Your task to perform on an android device: Go to Google Image 0: 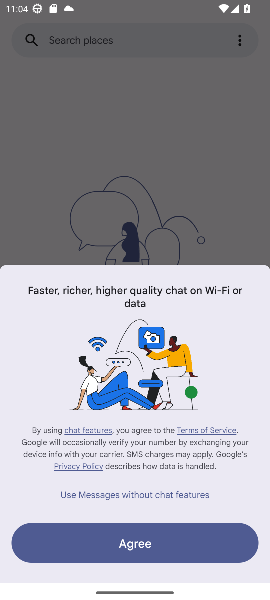
Step 0: press home button
Your task to perform on an android device: Go to Google Image 1: 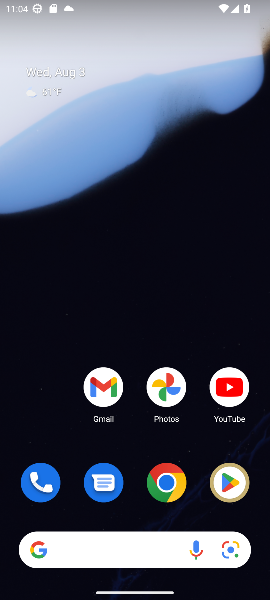
Step 1: click (164, 495)
Your task to perform on an android device: Go to Google Image 2: 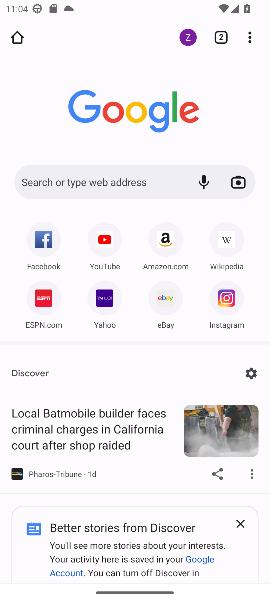
Step 2: task complete